Your task to perform on an android device: Open the map Image 0: 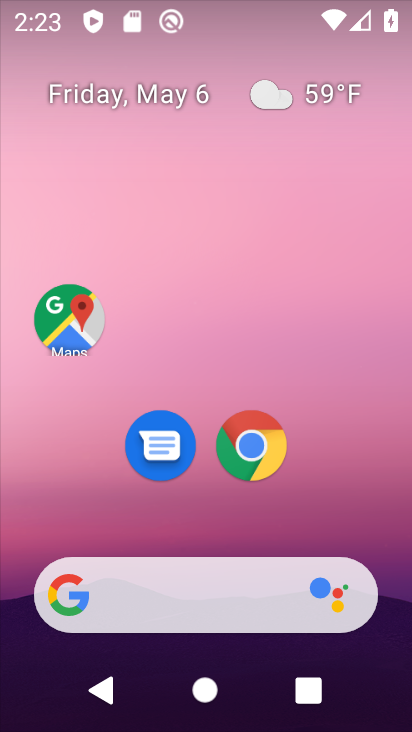
Step 0: click (62, 326)
Your task to perform on an android device: Open the map Image 1: 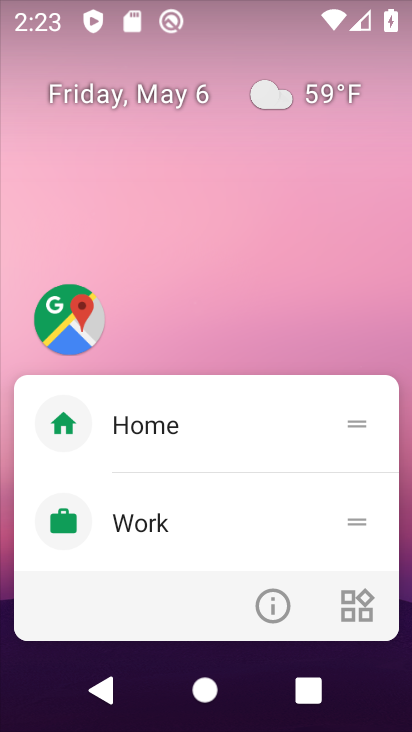
Step 1: click (69, 319)
Your task to perform on an android device: Open the map Image 2: 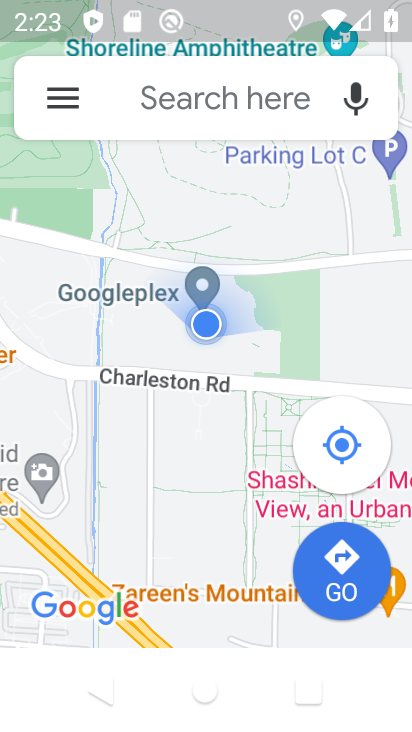
Step 2: task complete